Your task to perform on an android device: Add logitech g pro to the cart on target.com Image 0: 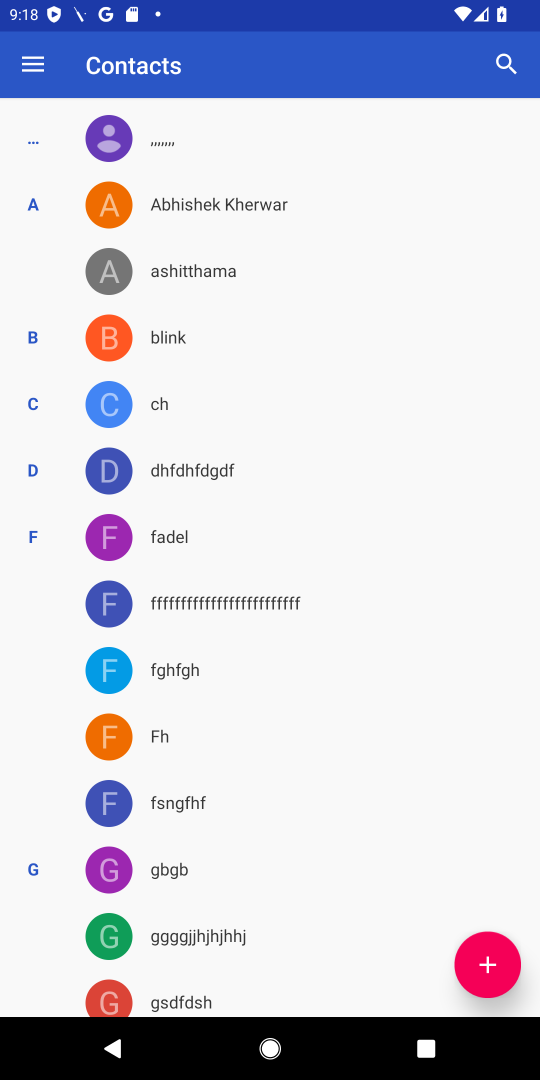
Step 0: press home button
Your task to perform on an android device: Add logitech g pro to the cart on target.com Image 1: 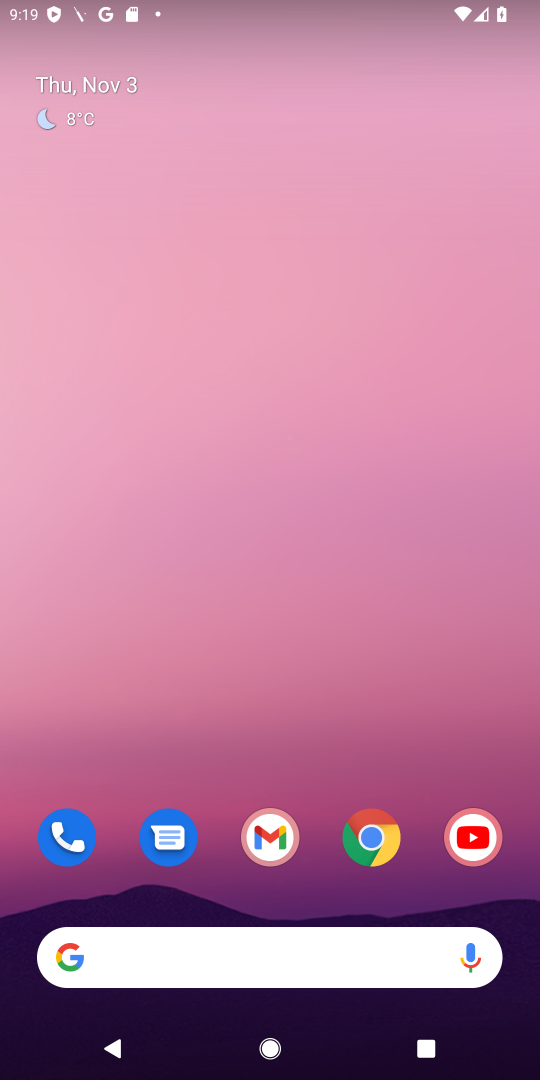
Step 1: click (380, 835)
Your task to perform on an android device: Add logitech g pro to the cart on target.com Image 2: 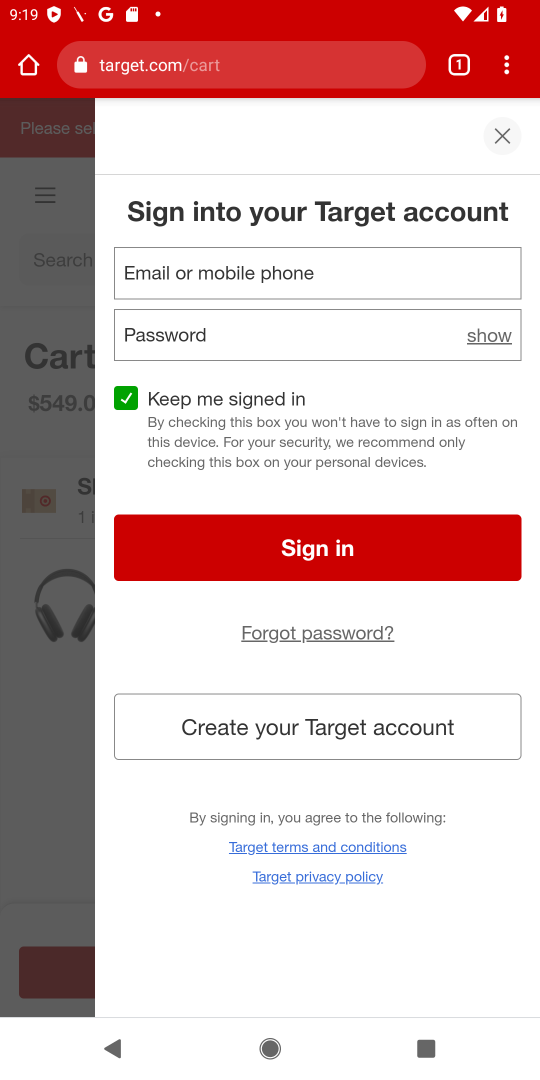
Step 2: click (362, 71)
Your task to perform on an android device: Add logitech g pro to the cart on target.com Image 3: 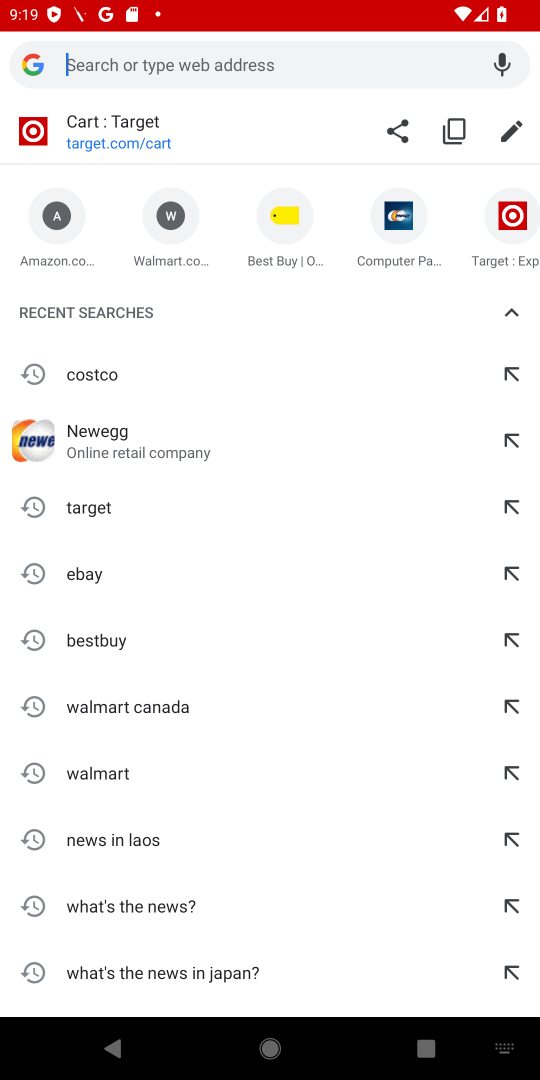
Step 3: click (89, 506)
Your task to perform on an android device: Add logitech g pro to the cart on target.com Image 4: 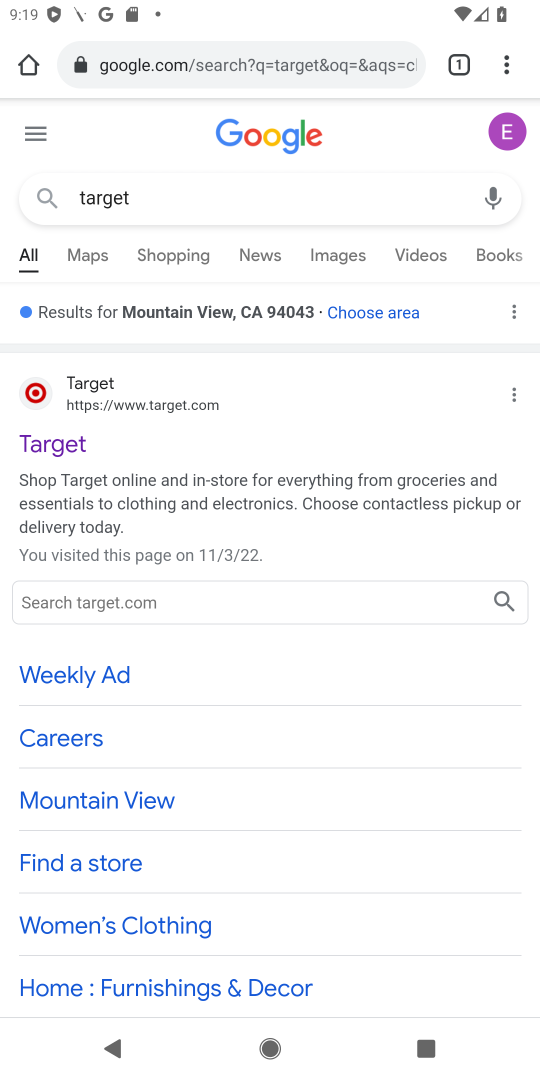
Step 4: click (73, 443)
Your task to perform on an android device: Add logitech g pro to the cart on target.com Image 5: 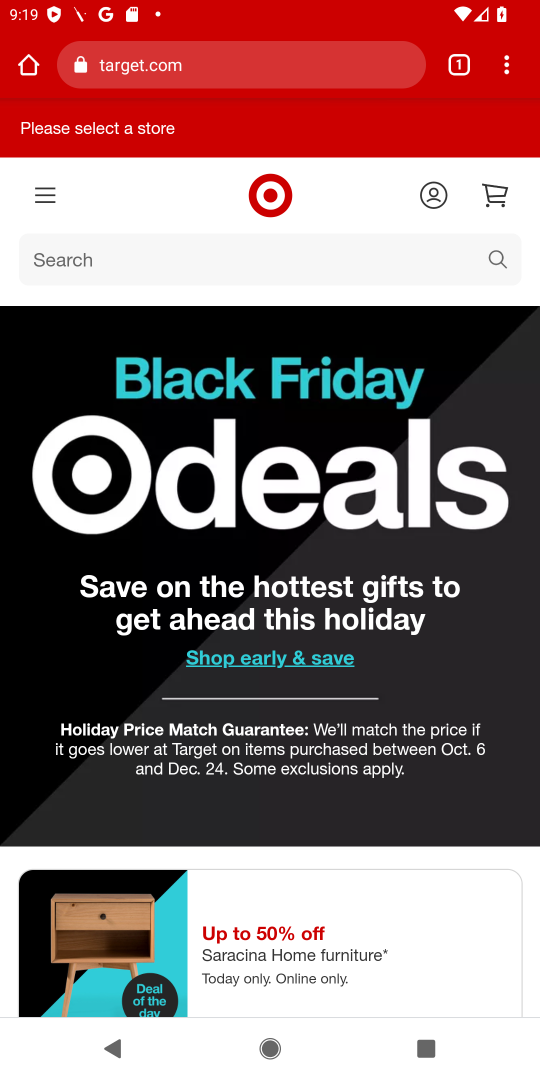
Step 5: click (187, 257)
Your task to perform on an android device: Add logitech g pro to the cart on target.com Image 6: 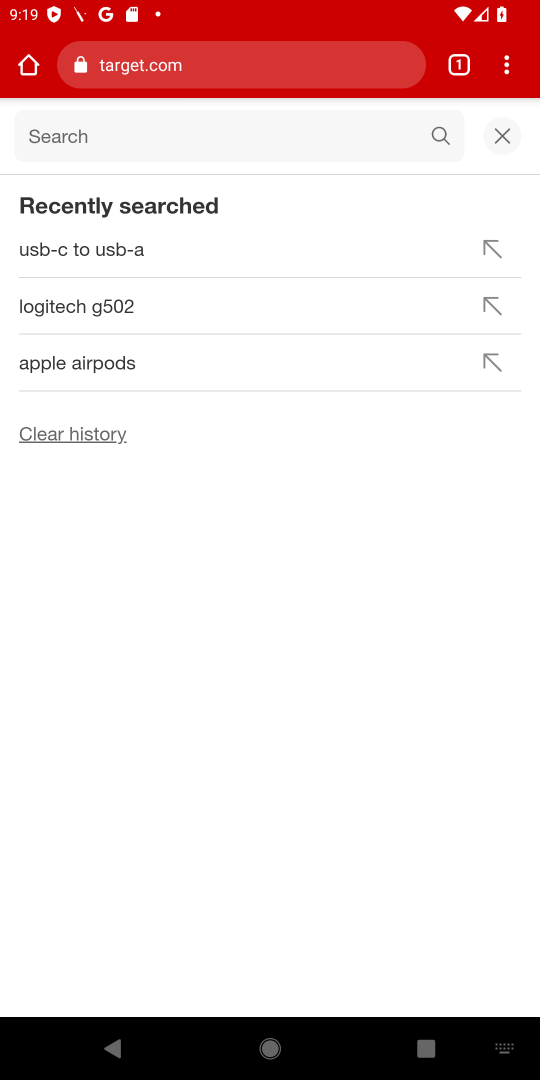
Step 6: click (97, 136)
Your task to perform on an android device: Add logitech g pro to the cart on target.com Image 7: 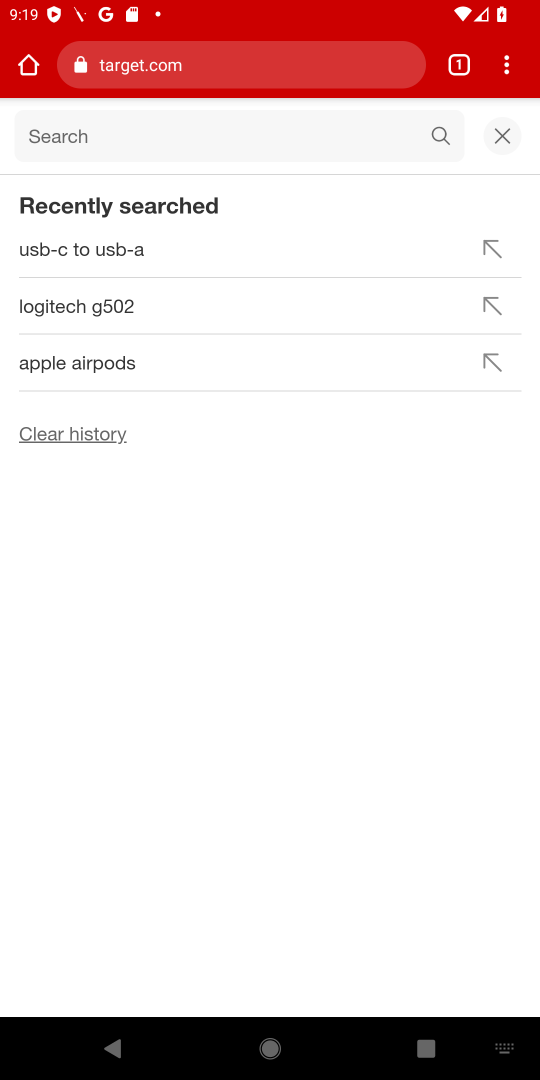
Step 7: type "logitech g pro "
Your task to perform on an android device: Add logitech g pro to the cart on target.com Image 8: 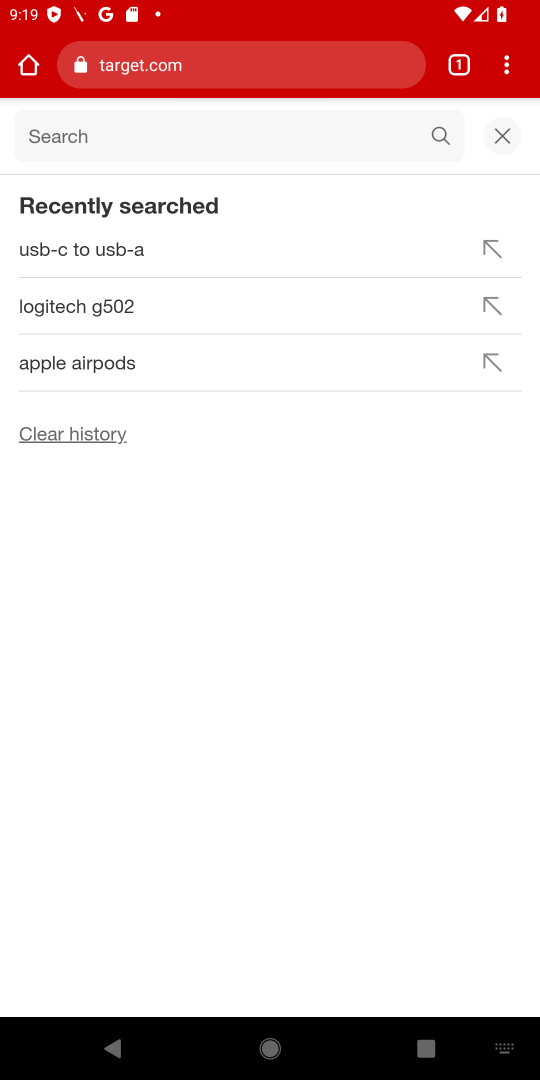
Step 8: press enter
Your task to perform on an android device: Add logitech g pro to the cart on target.com Image 9: 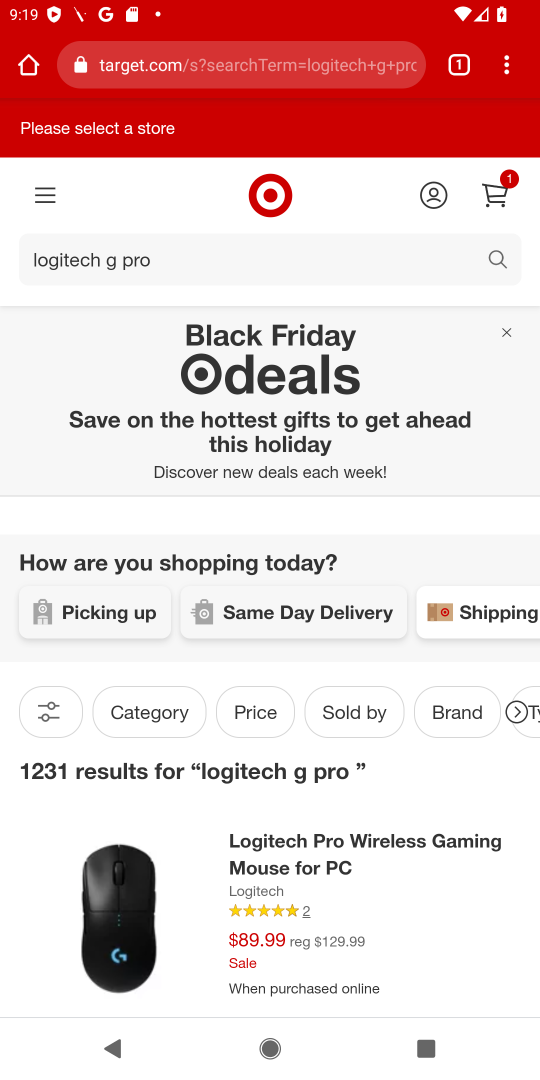
Step 9: task complete